Your task to perform on an android device: delete a single message in the gmail app Image 0: 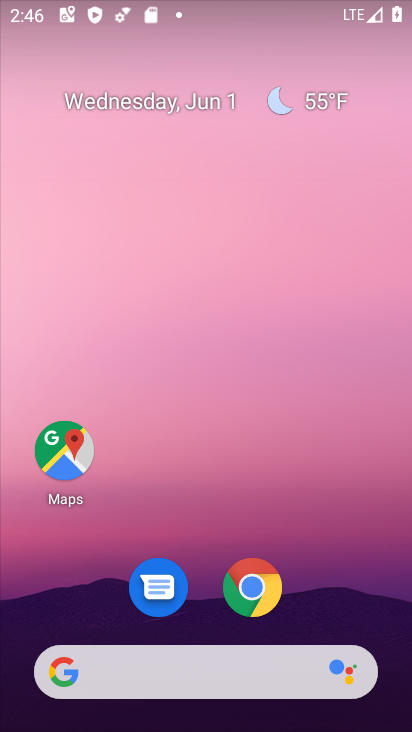
Step 0: drag from (209, 650) to (179, 190)
Your task to perform on an android device: delete a single message in the gmail app Image 1: 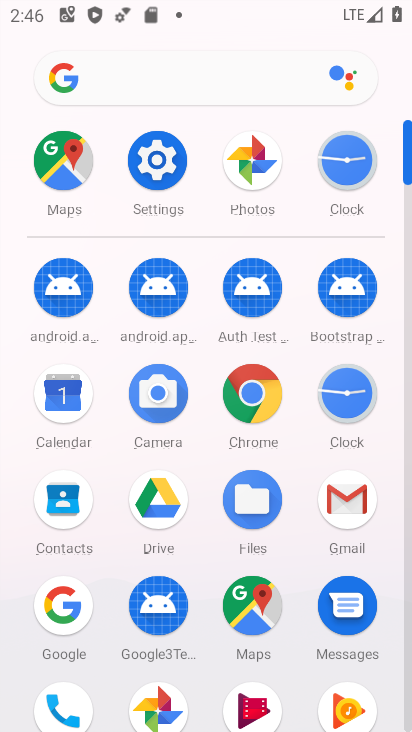
Step 1: click (362, 501)
Your task to perform on an android device: delete a single message in the gmail app Image 2: 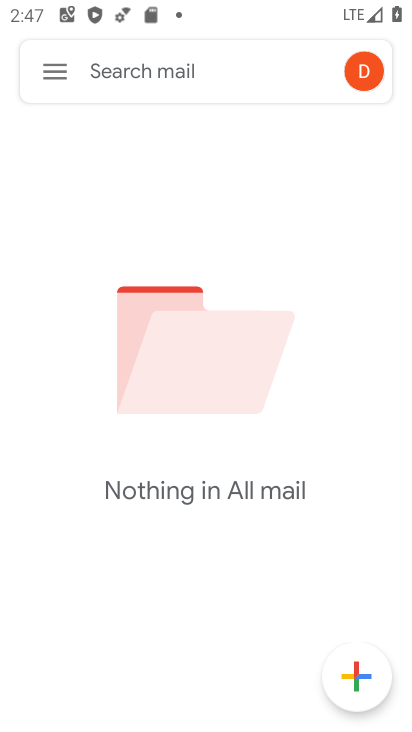
Step 2: task complete